Your task to perform on an android device: toggle notifications settings in the gmail app Image 0: 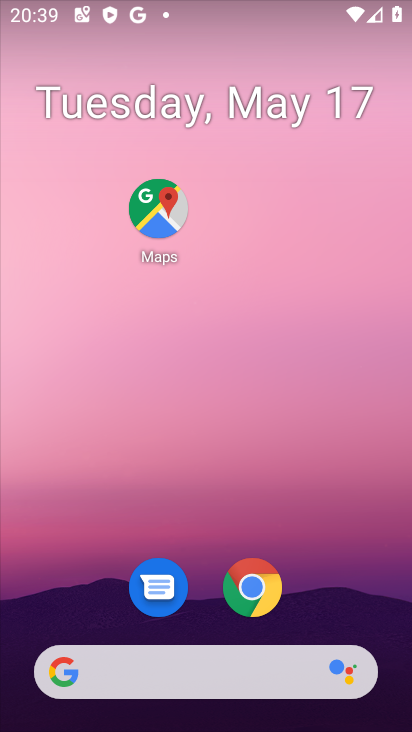
Step 0: drag from (4, 664) to (271, 164)
Your task to perform on an android device: toggle notifications settings in the gmail app Image 1: 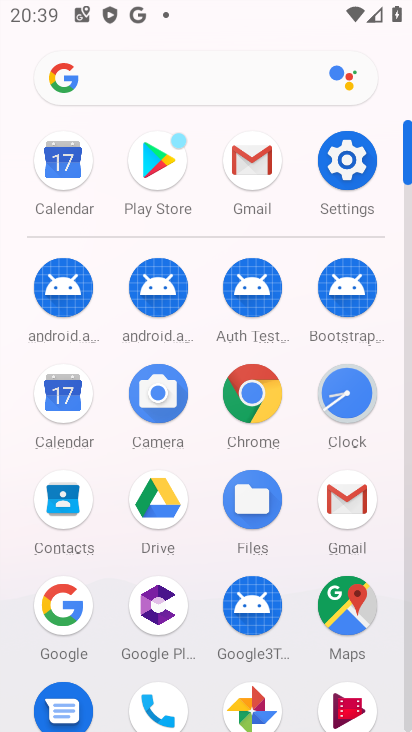
Step 1: click (246, 167)
Your task to perform on an android device: toggle notifications settings in the gmail app Image 2: 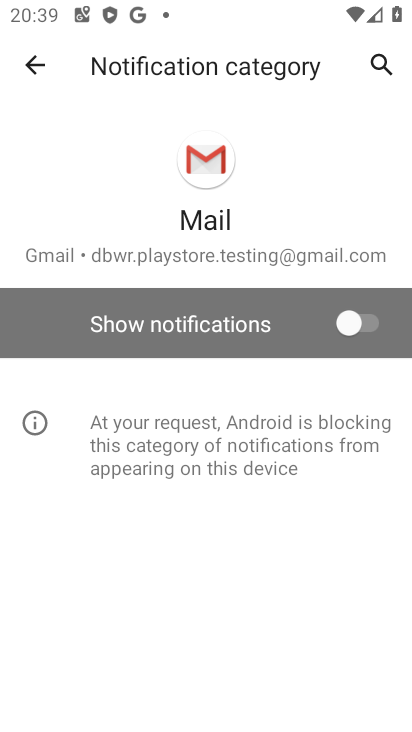
Step 2: click (339, 331)
Your task to perform on an android device: toggle notifications settings in the gmail app Image 3: 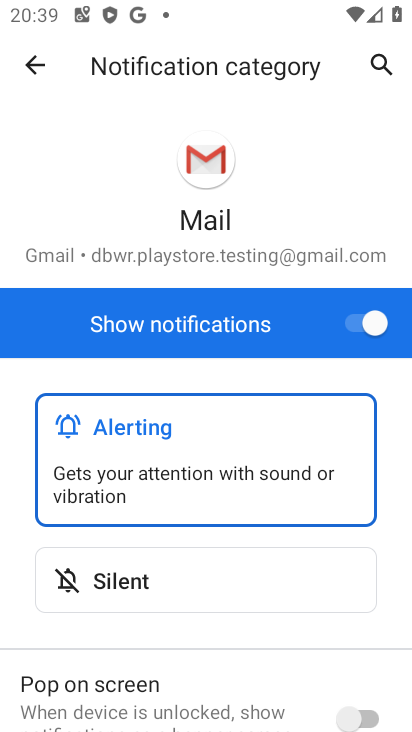
Step 3: task complete